Your task to perform on an android device: turn off location Image 0: 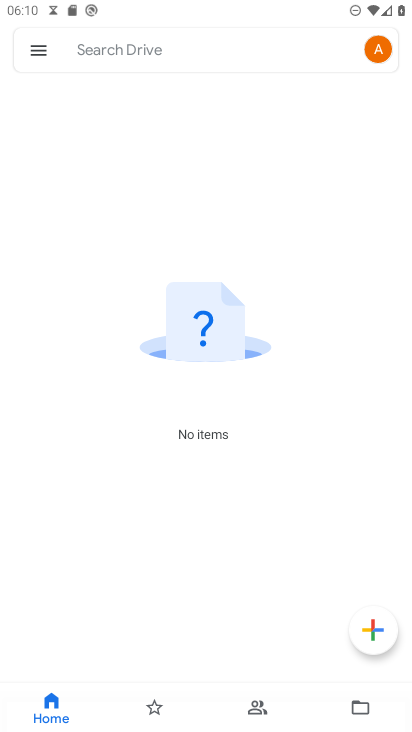
Step 0: press home button
Your task to perform on an android device: turn off location Image 1: 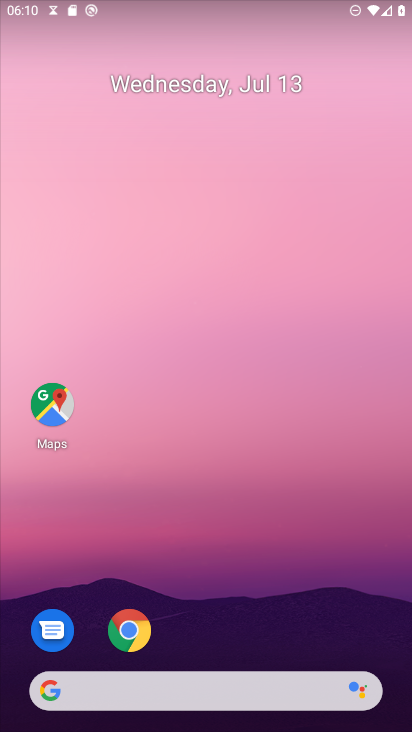
Step 1: drag from (149, 706) to (339, 91)
Your task to perform on an android device: turn off location Image 2: 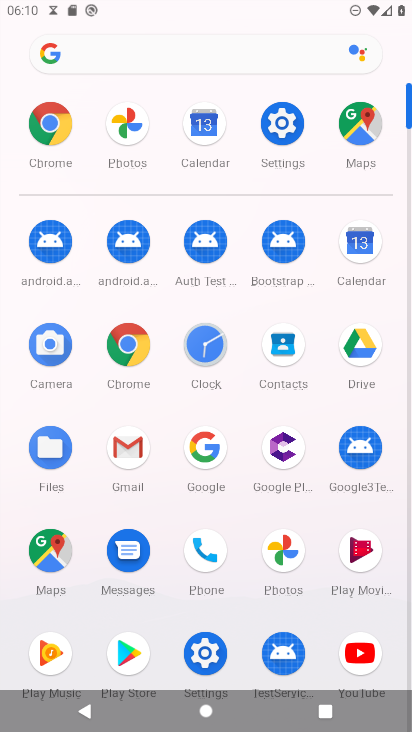
Step 2: click (272, 119)
Your task to perform on an android device: turn off location Image 3: 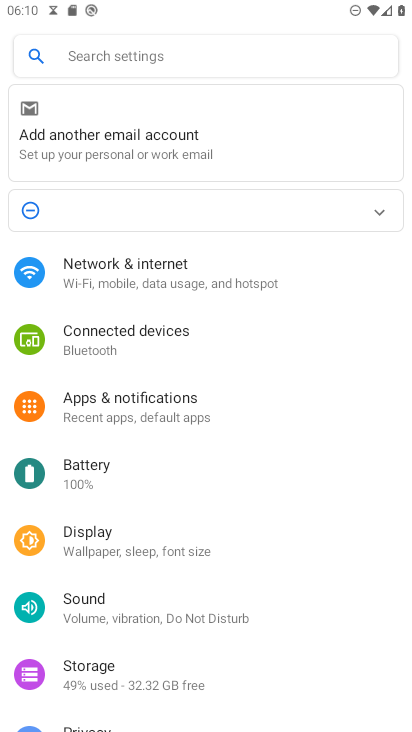
Step 3: drag from (104, 665) to (147, 277)
Your task to perform on an android device: turn off location Image 4: 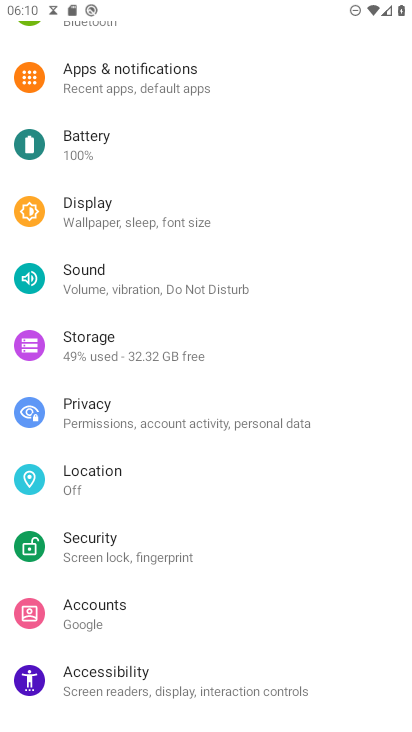
Step 4: click (119, 483)
Your task to perform on an android device: turn off location Image 5: 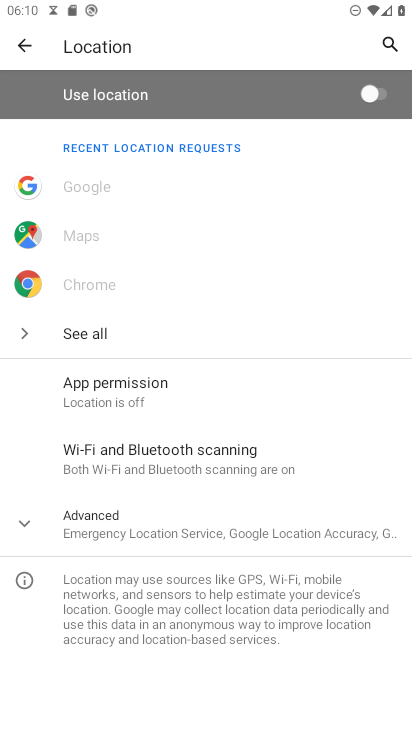
Step 5: task complete